Your task to perform on an android device: all mails in gmail Image 0: 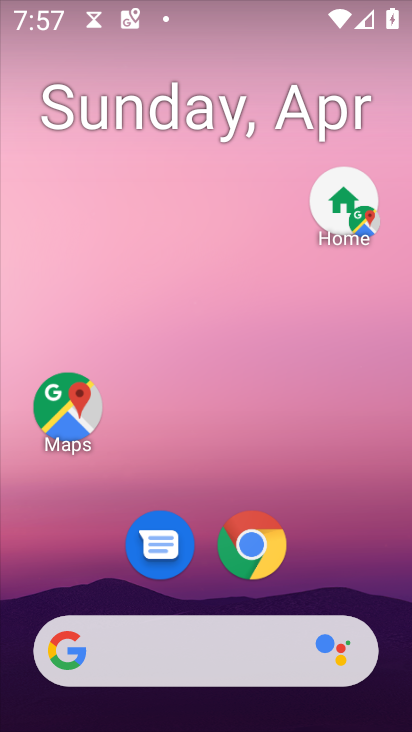
Step 0: drag from (306, 564) to (275, 232)
Your task to perform on an android device: all mails in gmail Image 1: 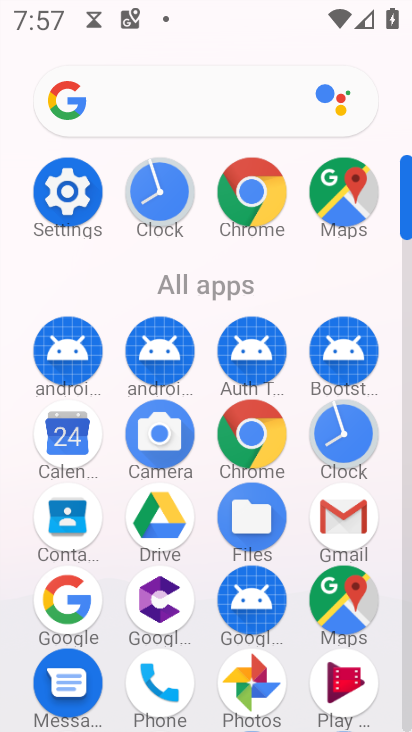
Step 1: click (336, 521)
Your task to perform on an android device: all mails in gmail Image 2: 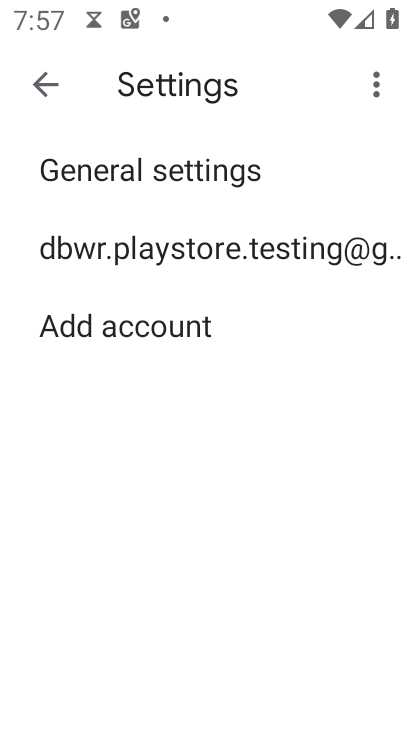
Step 2: click (112, 245)
Your task to perform on an android device: all mails in gmail Image 3: 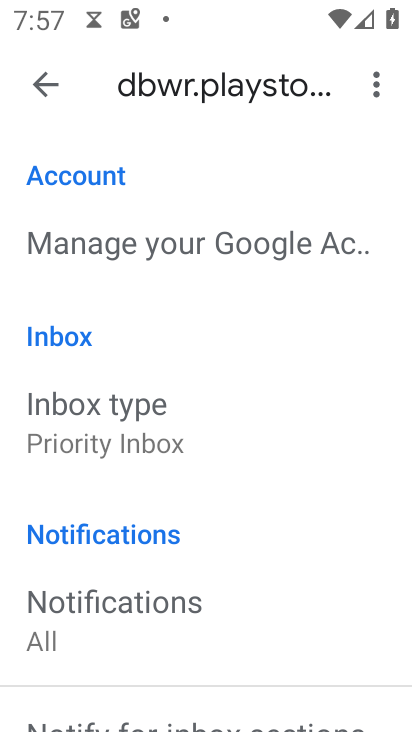
Step 3: press back button
Your task to perform on an android device: all mails in gmail Image 4: 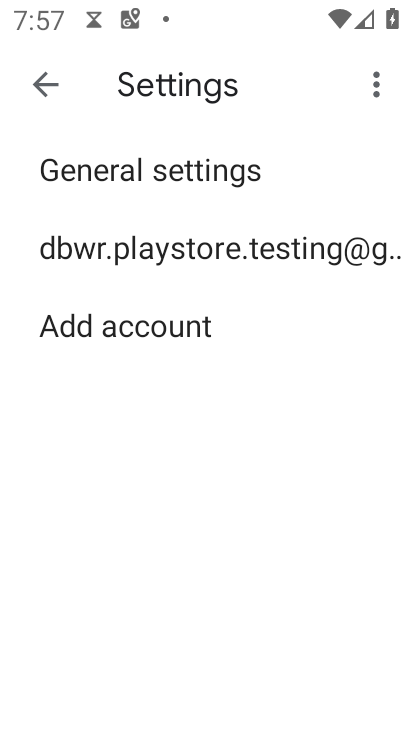
Step 4: press back button
Your task to perform on an android device: all mails in gmail Image 5: 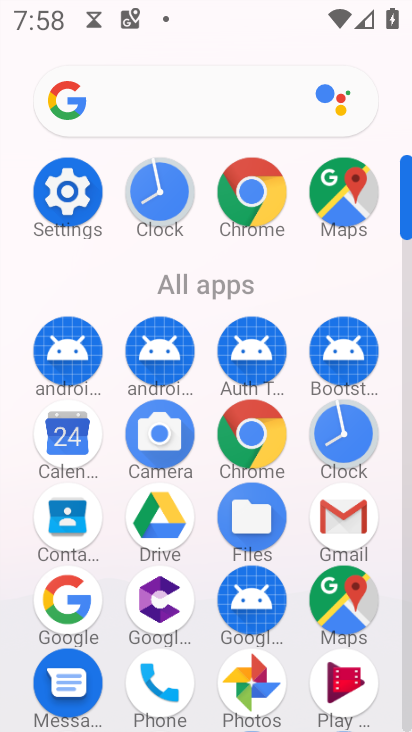
Step 5: click (340, 513)
Your task to perform on an android device: all mails in gmail Image 6: 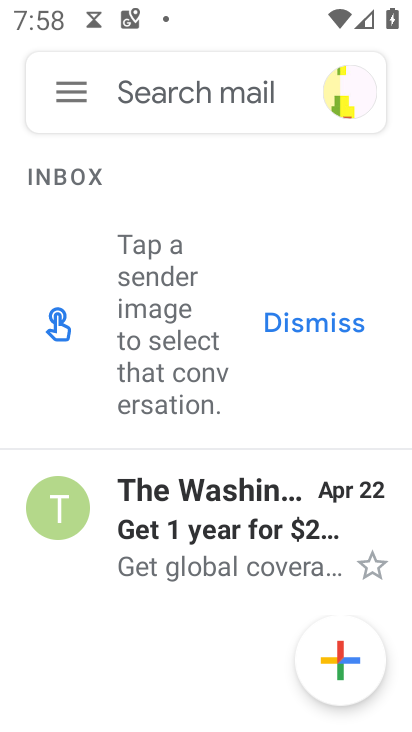
Step 6: click (59, 89)
Your task to perform on an android device: all mails in gmail Image 7: 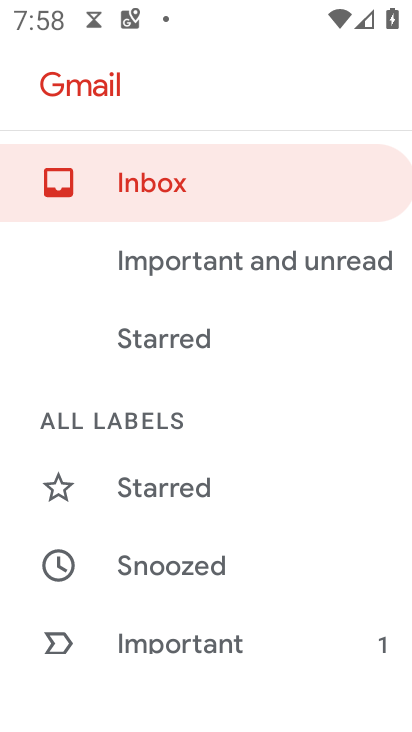
Step 7: drag from (209, 617) to (260, 160)
Your task to perform on an android device: all mails in gmail Image 8: 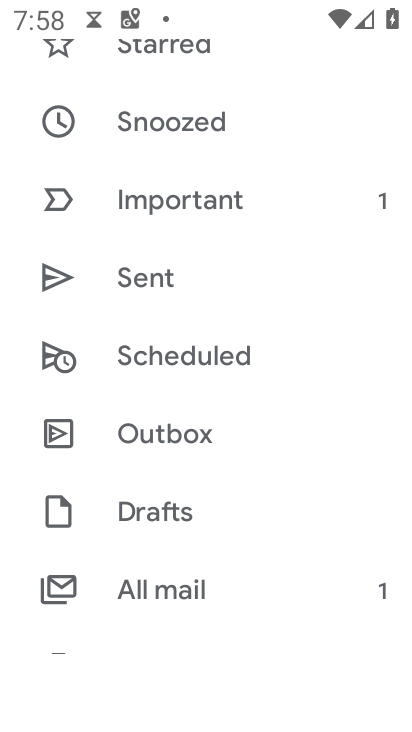
Step 8: click (207, 577)
Your task to perform on an android device: all mails in gmail Image 9: 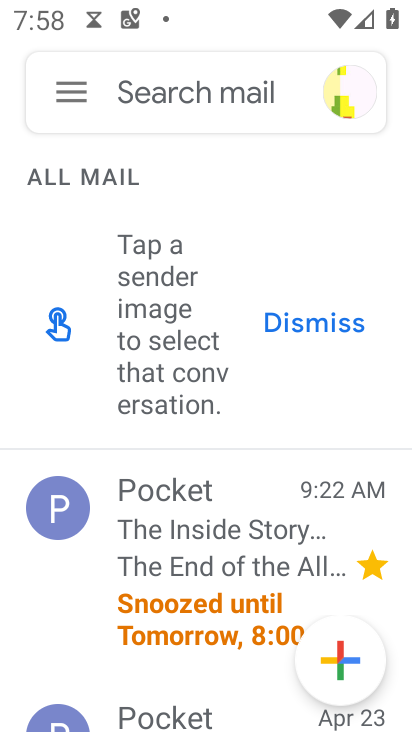
Step 9: task complete